Your task to perform on an android device: star an email in the gmail app Image 0: 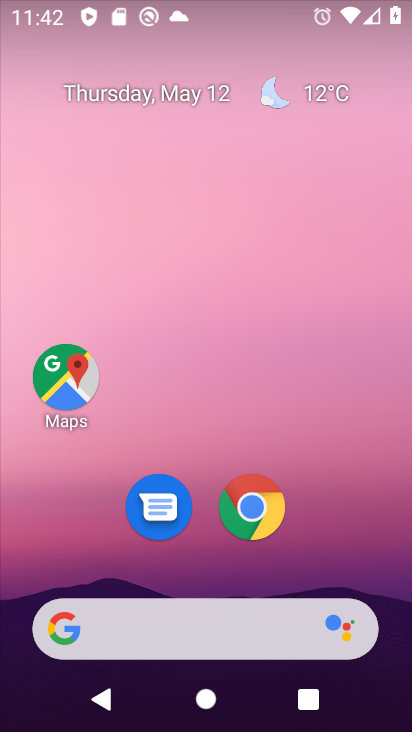
Step 0: drag from (195, 592) to (322, 3)
Your task to perform on an android device: star an email in the gmail app Image 1: 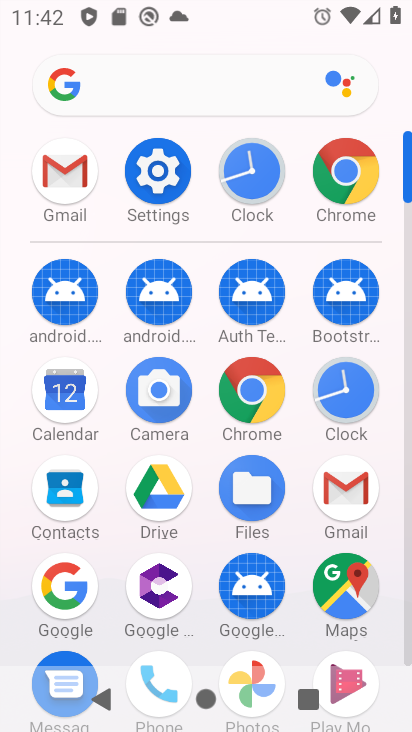
Step 1: click (349, 491)
Your task to perform on an android device: star an email in the gmail app Image 2: 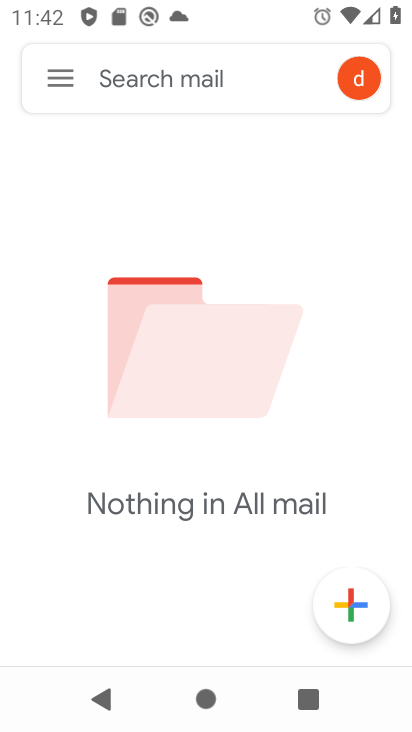
Step 2: task complete